Your task to perform on an android device: Play the last video I watched on Youtube Image 0: 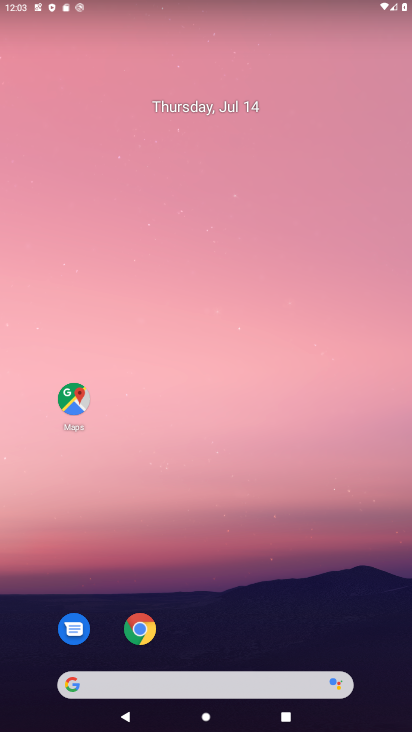
Step 0: drag from (233, 634) to (199, 201)
Your task to perform on an android device: Play the last video I watched on Youtube Image 1: 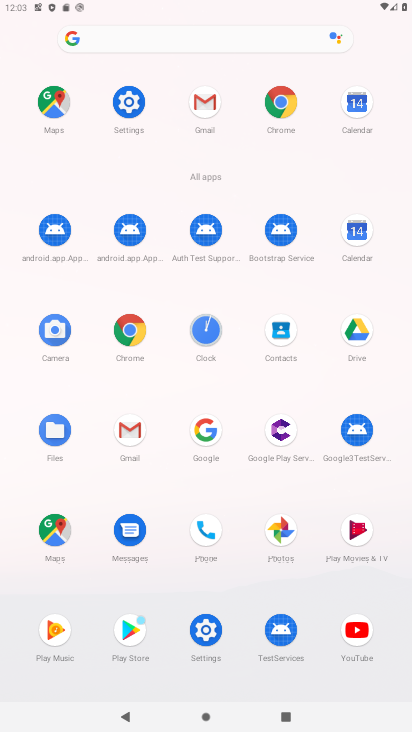
Step 1: click (359, 635)
Your task to perform on an android device: Play the last video I watched on Youtube Image 2: 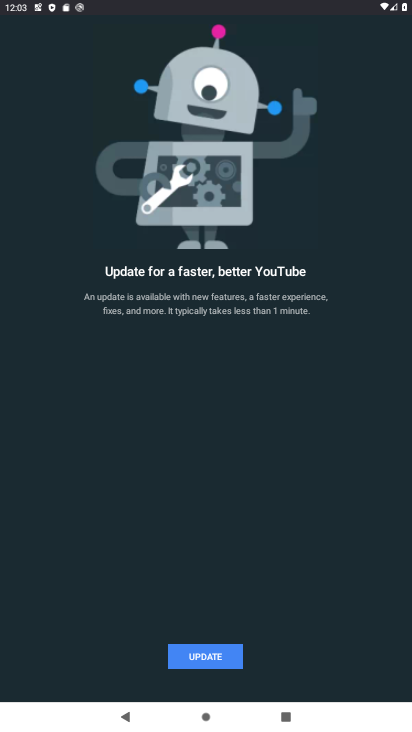
Step 2: click (225, 662)
Your task to perform on an android device: Play the last video I watched on Youtube Image 3: 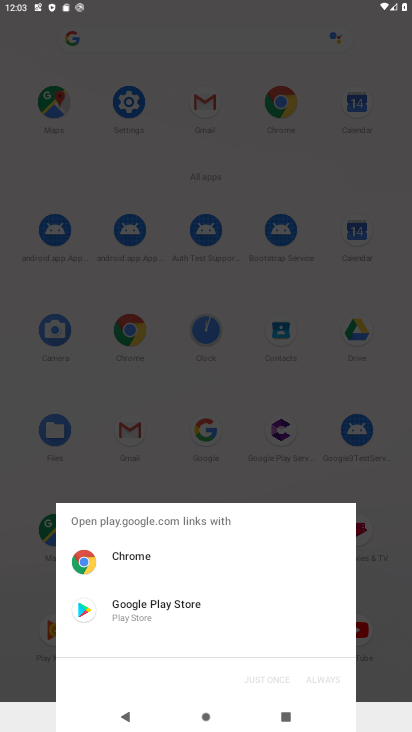
Step 3: click (203, 614)
Your task to perform on an android device: Play the last video I watched on Youtube Image 4: 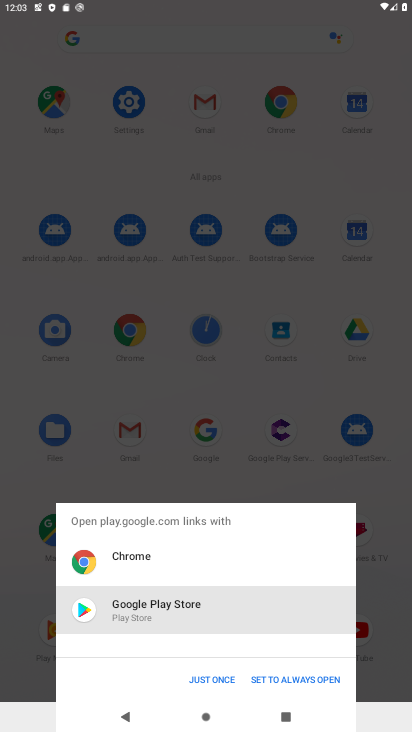
Step 4: click (206, 675)
Your task to perform on an android device: Play the last video I watched on Youtube Image 5: 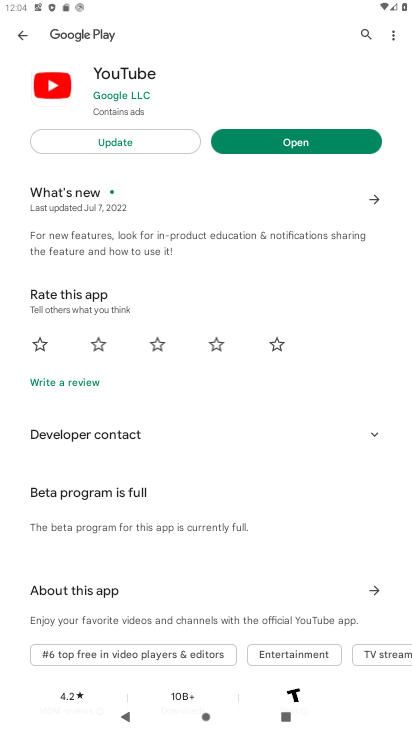
Step 5: click (170, 149)
Your task to perform on an android device: Play the last video I watched on Youtube Image 6: 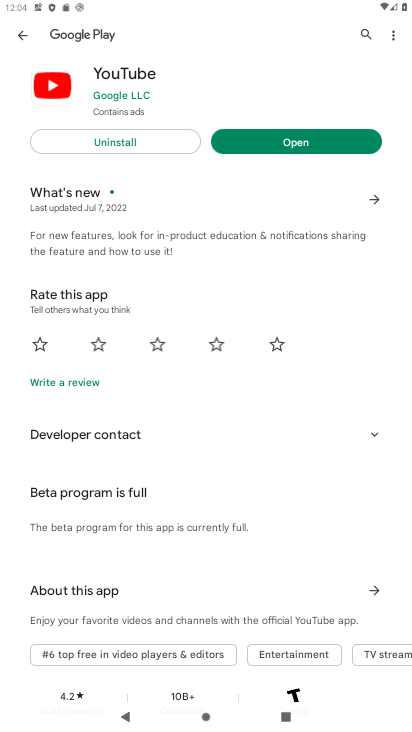
Step 6: click (321, 142)
Your task to perform on an android device: Play the last video I watched on Youtube Image 7: 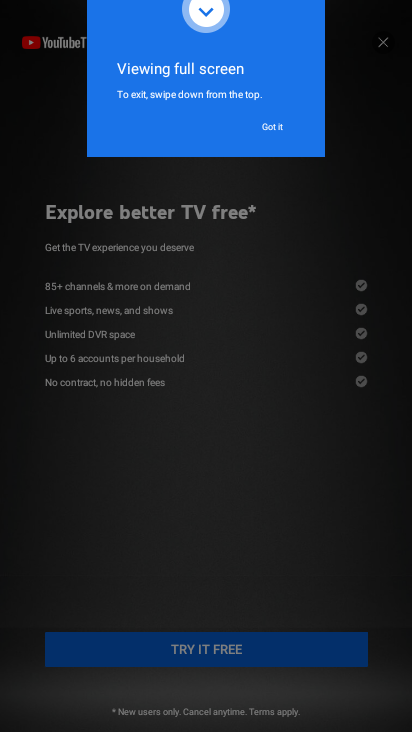
Step 7: click (276, 122)
Your task to perform on an android device: Play the last video I watched on Youtube Image 8: 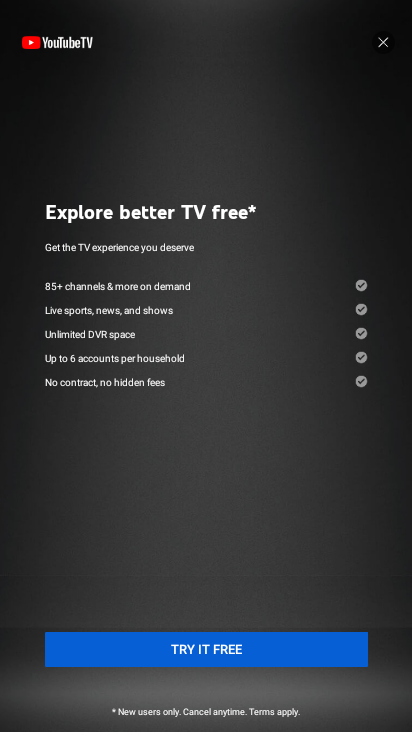
Step 8: click (276, 122)
Your task to perform on an android device: Play the last video I watched on Youtube Image 9: 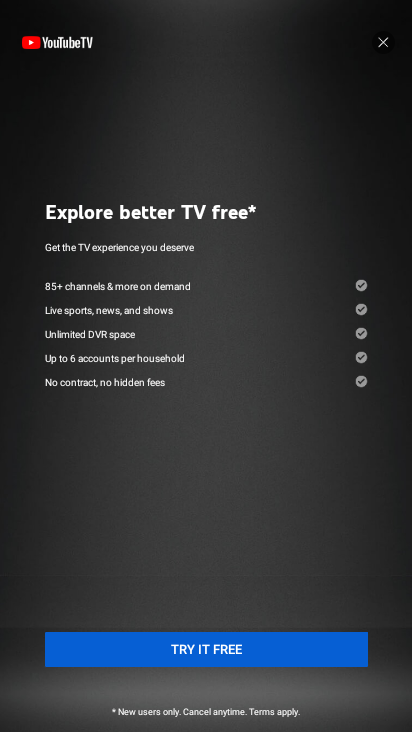
Step 9: click (384, 51)
Your task to perform on an android device: Play the last video I watched on Youtube Image 10: 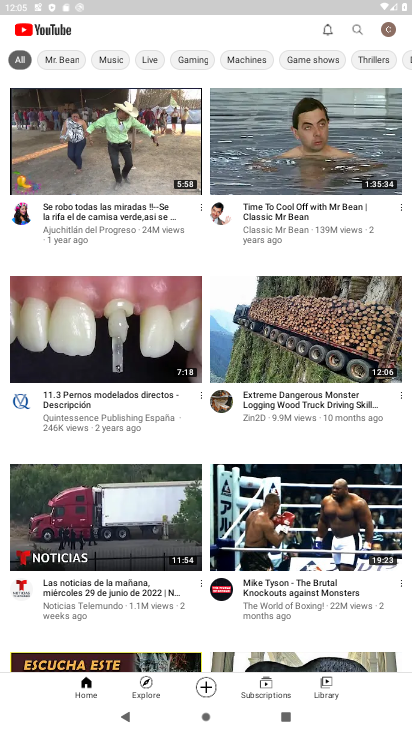
Step 10: click (332, 688)
Your task to perform on an android device: Play the last video I watched on Youtube Image 11: 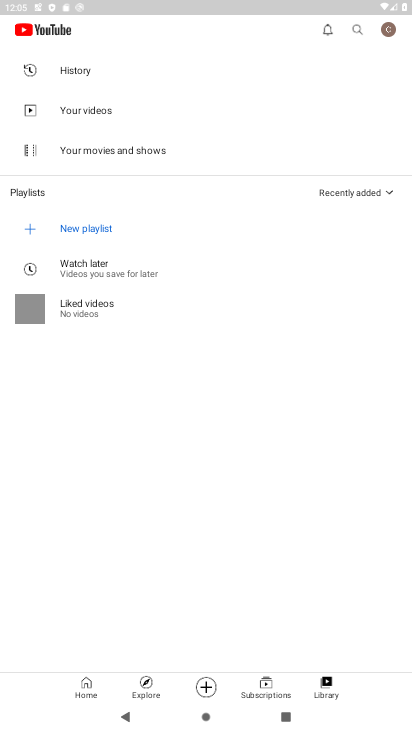
Step 11: click (273, 381)
Your task to perform on an android device: Play the last video I watched on Youtube Image 12: 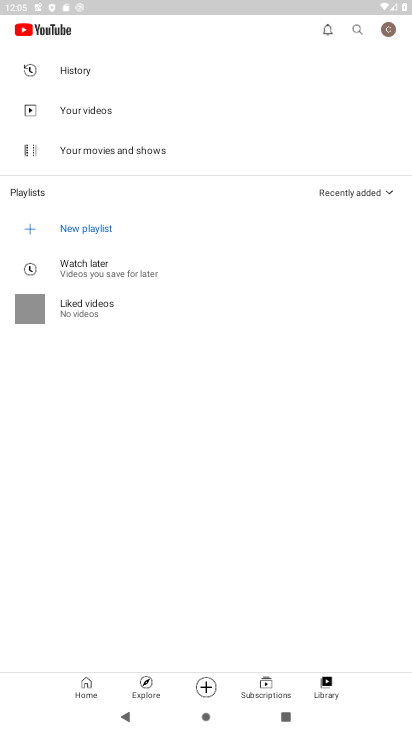
Step 12: click (159, 200)
Your task to perform on an android device: Play the last video I watched on Youtube Image 13: 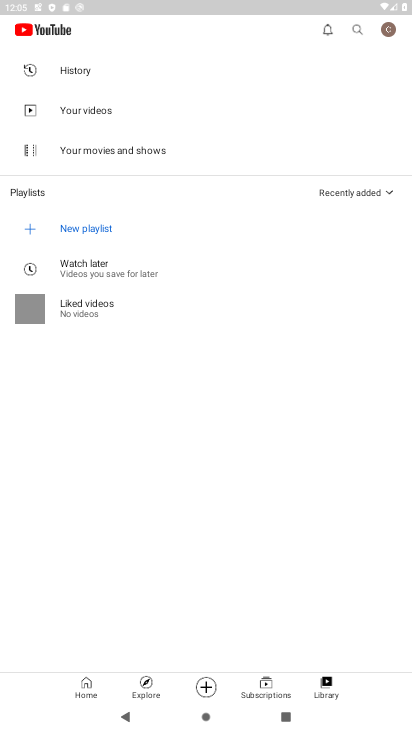
Step 13: click (109, 75)
Your task to perform on an android device: Play the last video I watched on Youtube Image 14: 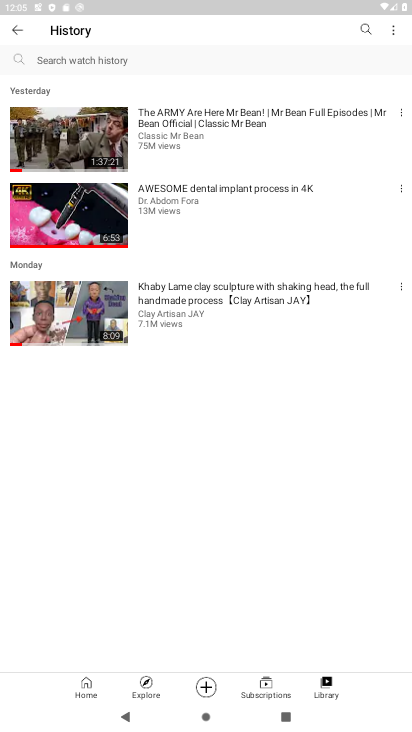
Step 14: click (109, 75)
Your task to perform on an android device: Play the last video I watched on Youtube Image 15: 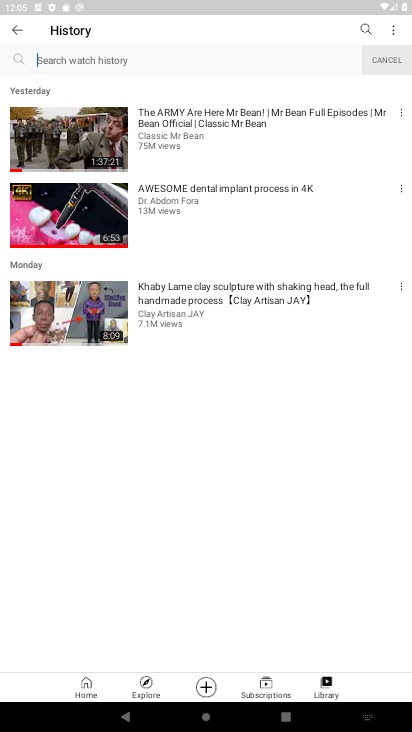
Step 15: click (250, 165)
Your task to perform on an android device: Play the last video I watched on Youtube Image 16: 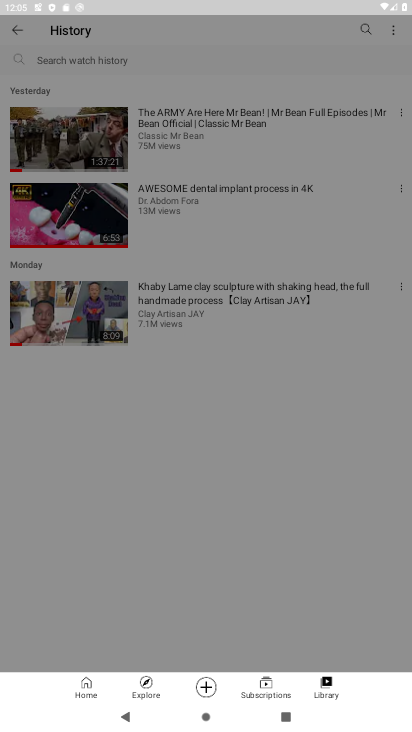
Step 16: click (236, 153)
Your task to perform on an android device: Play the last video I watched on Youtube Image 17: 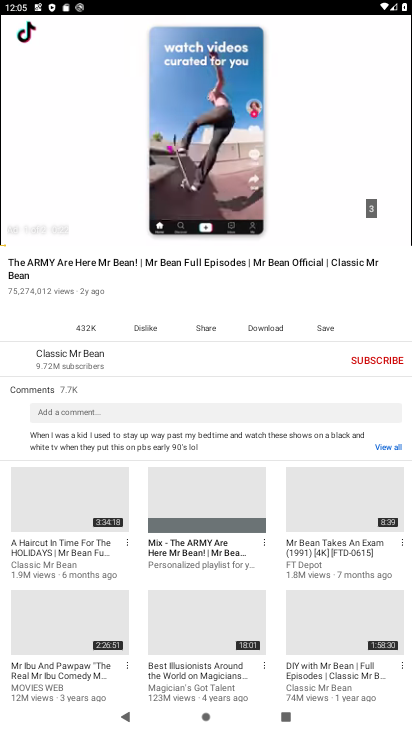
Step 17: task complete